Your task to perform on an android device: Add razer blade to the cart on ebay.com, then select checkout. Image 0: 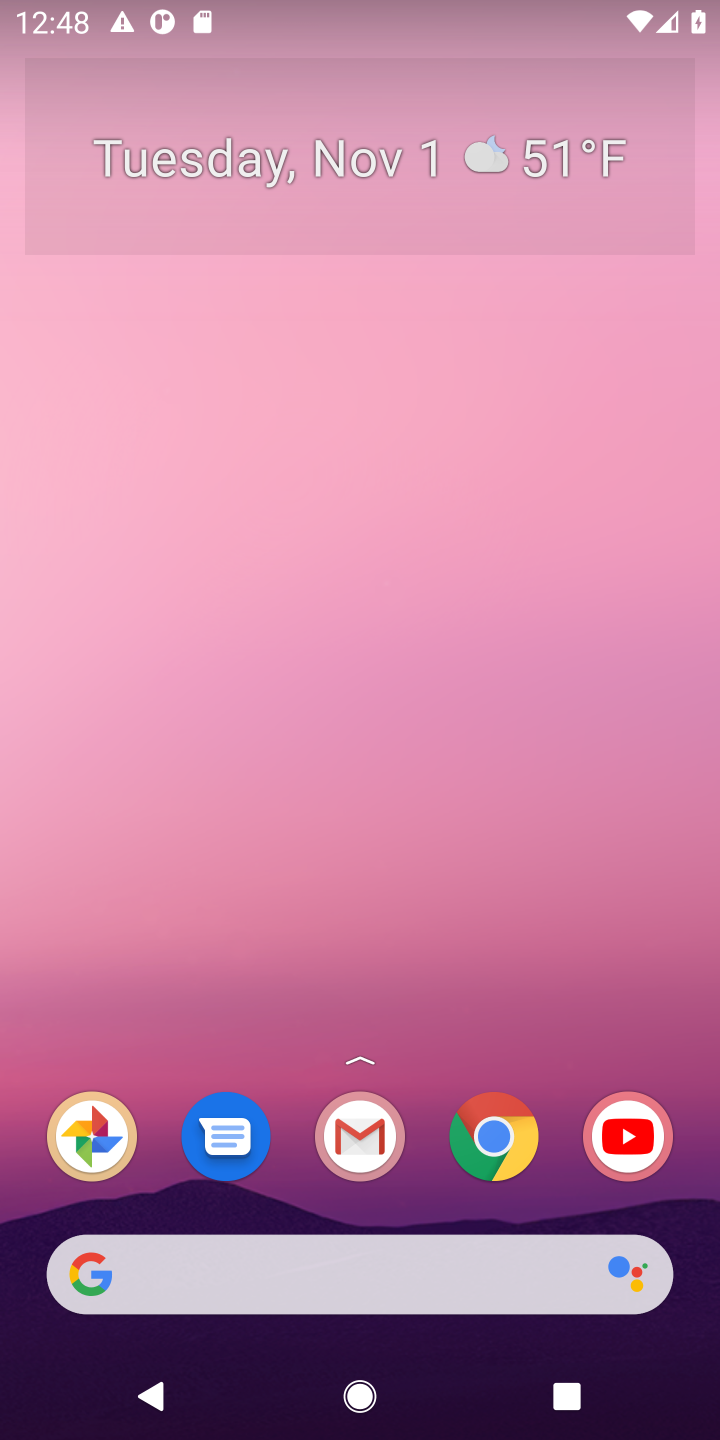
Step 0: press home button
Your task to perform on an android device: Add razer blade to the cart on ebay.com, then select checkout. Image 1: 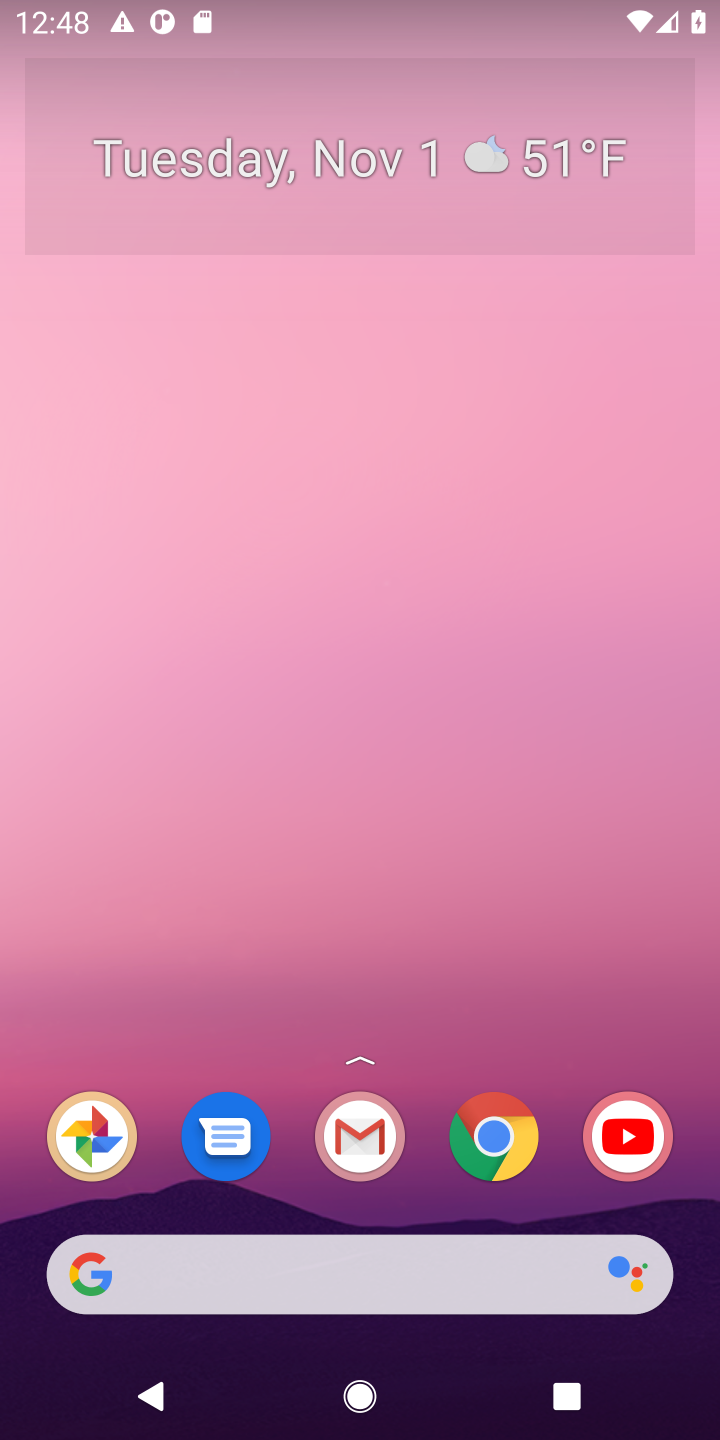
Step 1: click (140, 1281)
Your task to perform on an android device: Add razer blade to the cart on ebay.com, then select checkout. Image 2: 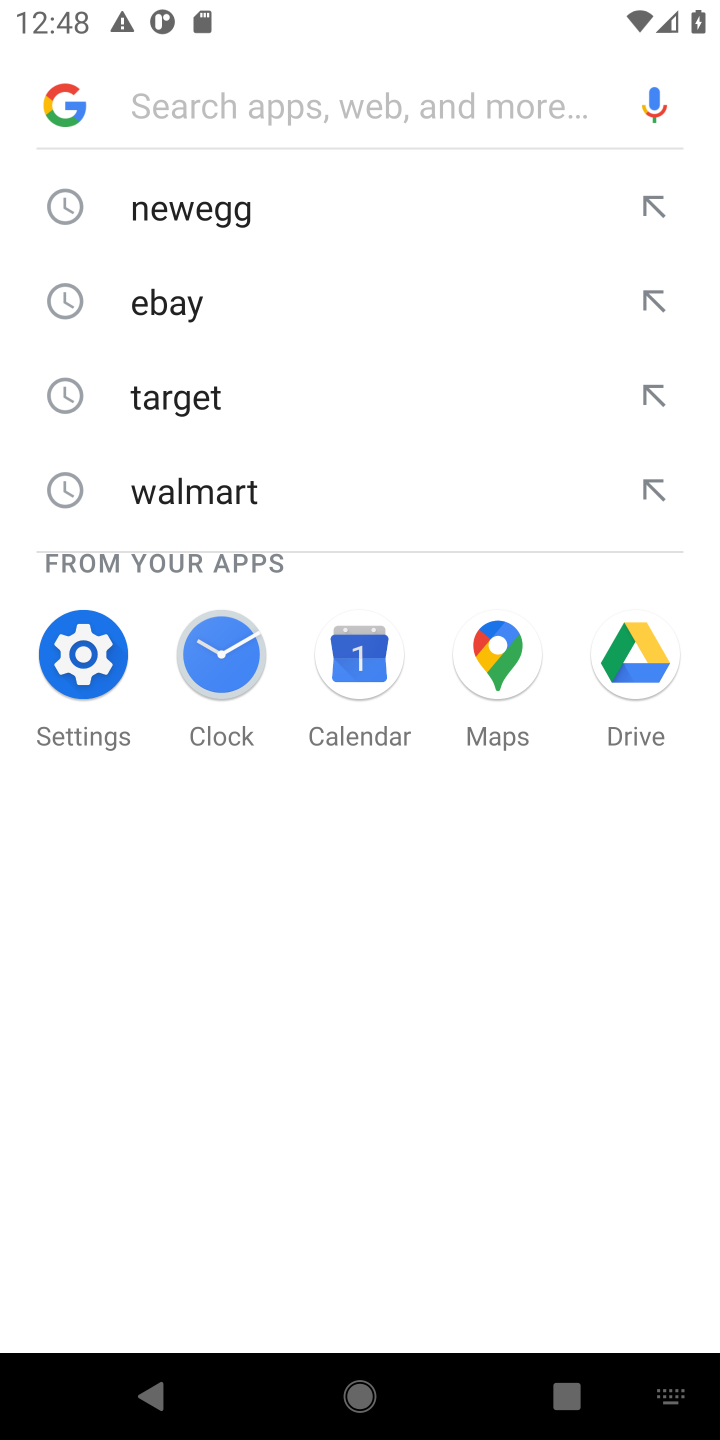
Step 2: type "ebay.com"
Your task to perform on an android device: Add razer blade to the cart on ebay.com, then select checkout. Image 3: 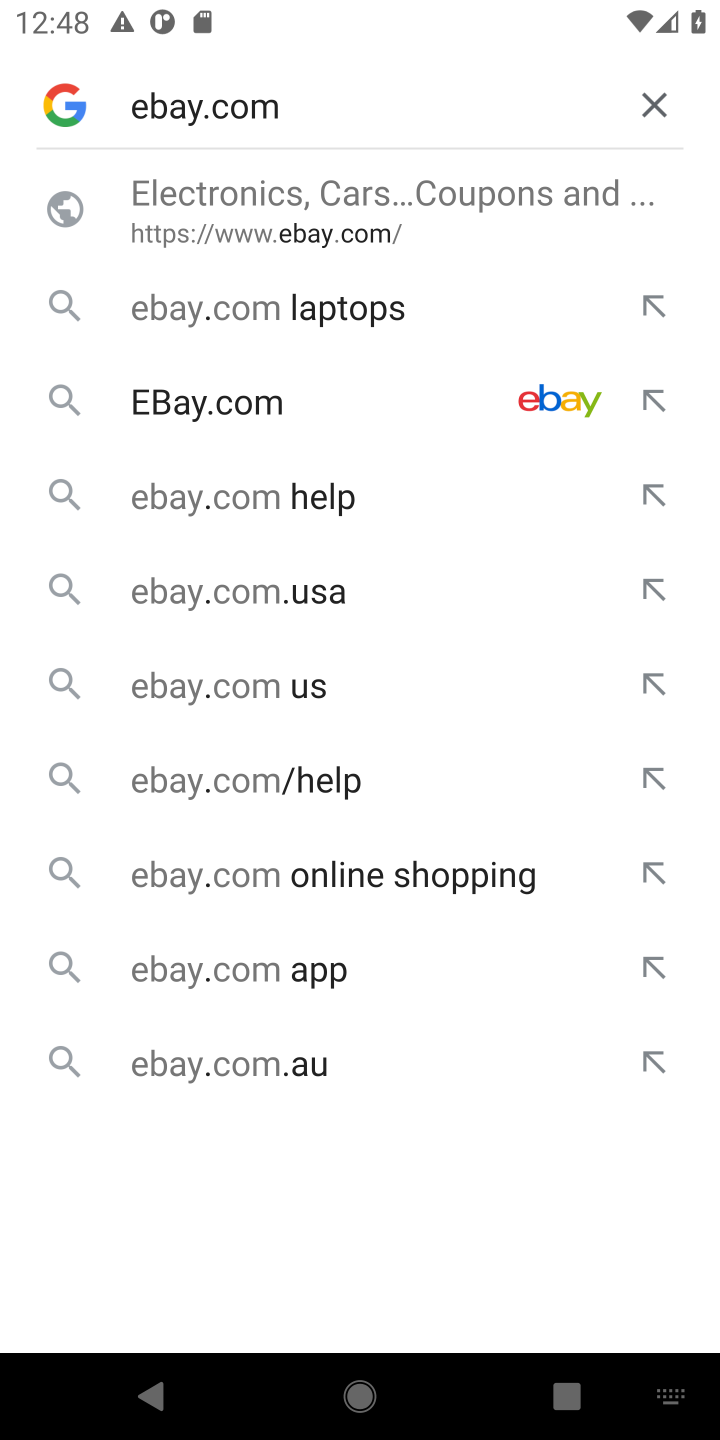
Step 3: press enter
Your task to perform on an android device: Add razer blade to the cart on ebay.com, then select checkout. Image 4: 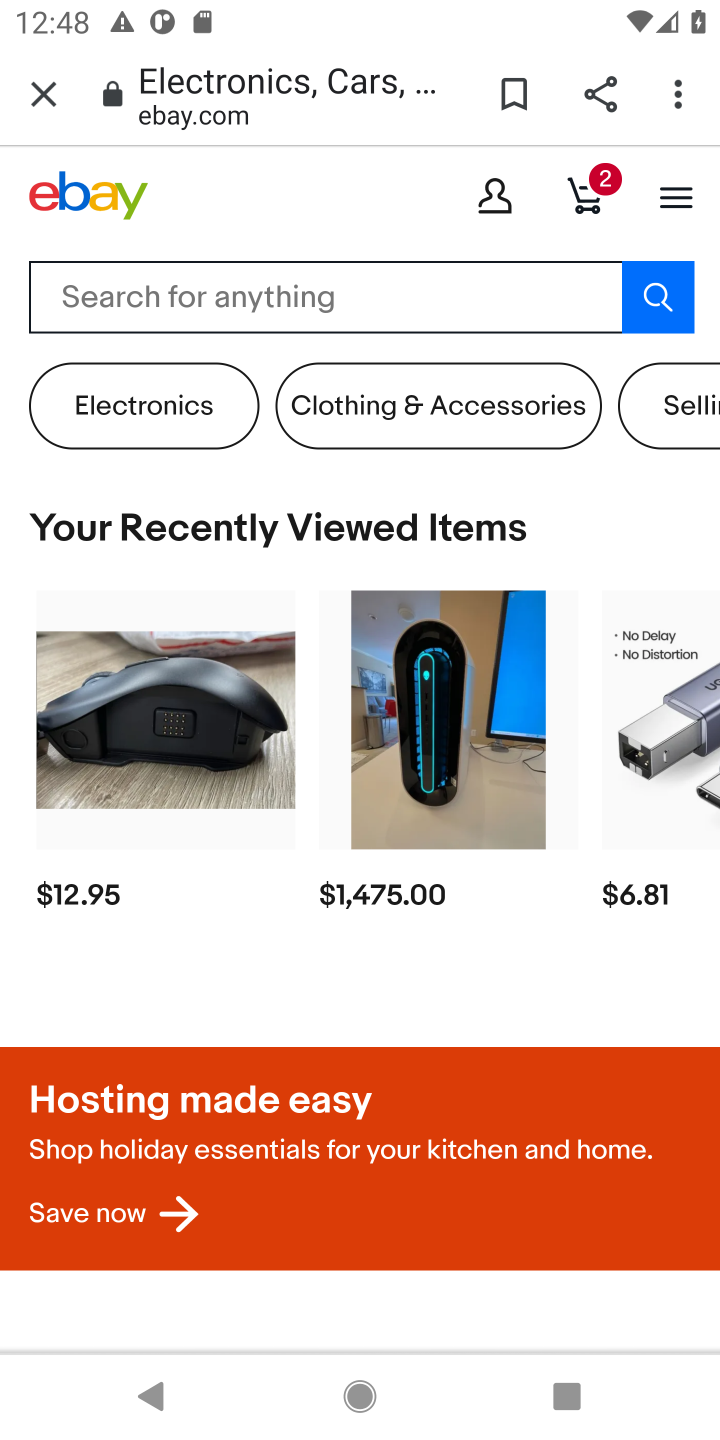
Step 4: click (99, 300)
Your task to perform on an android device: Add razer blade to the cart on ebay.com, then select checkout. Image 5: 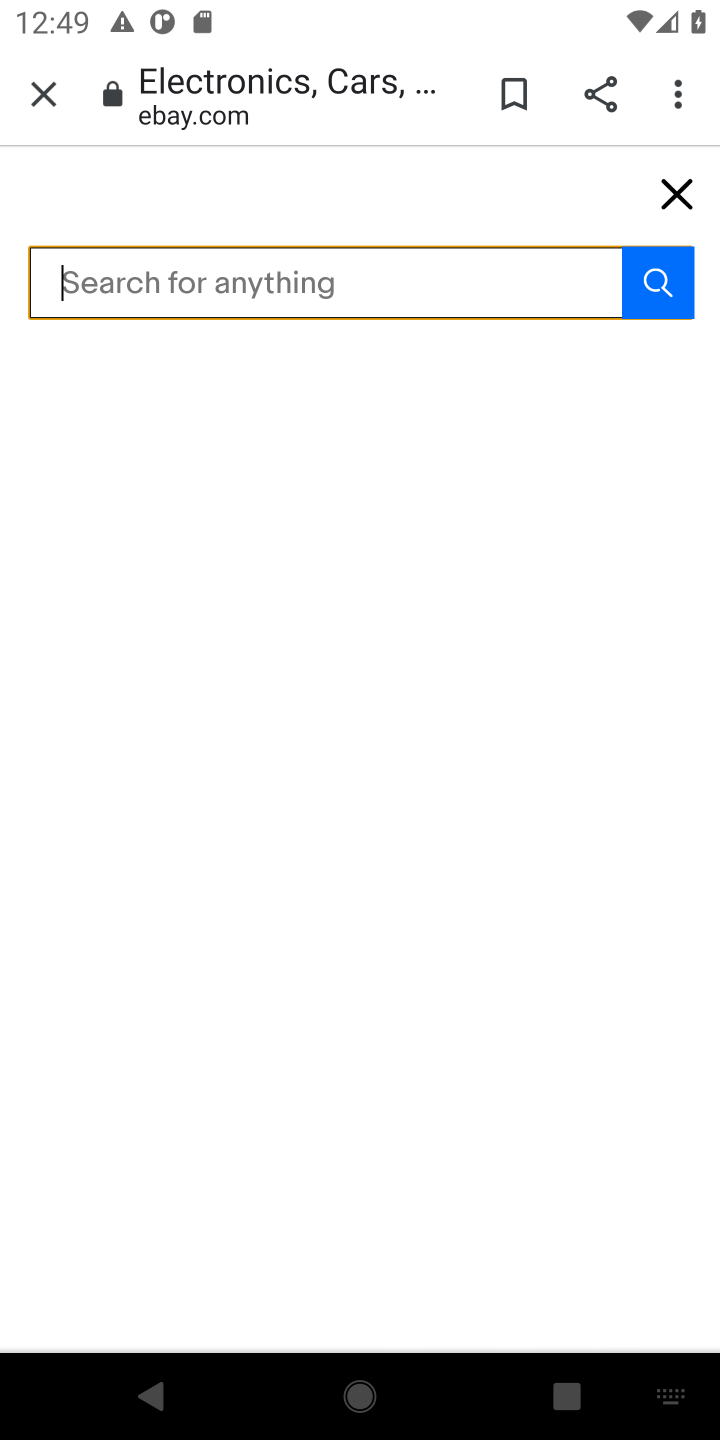
Step 5: type "razer blade"
Your task to perform on an android device: Add razer blade to the cart on ebay.com, then select checkout. Image 6: 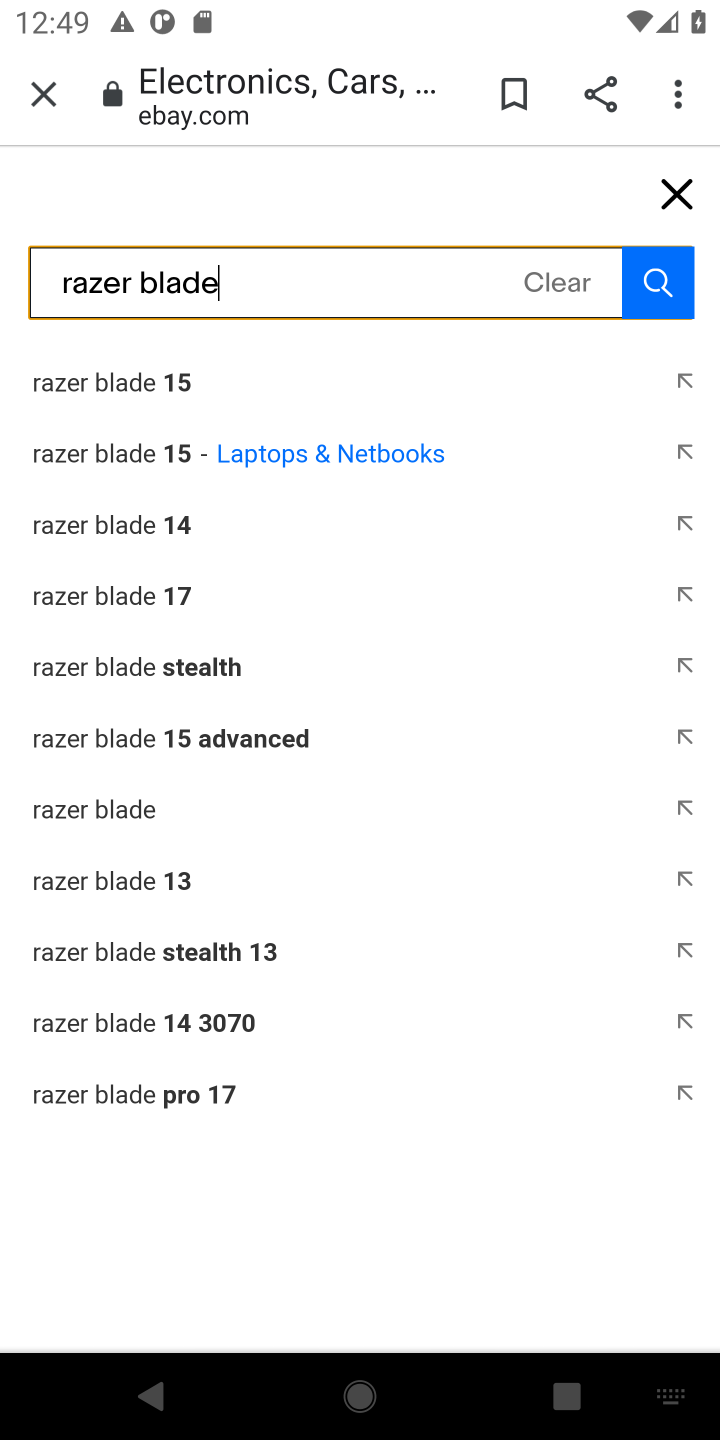
Step 6: click (659, 272)
Your task to perform on an android device: Add razer blade to the cart on ebay.com, then select checkout. Image 7: 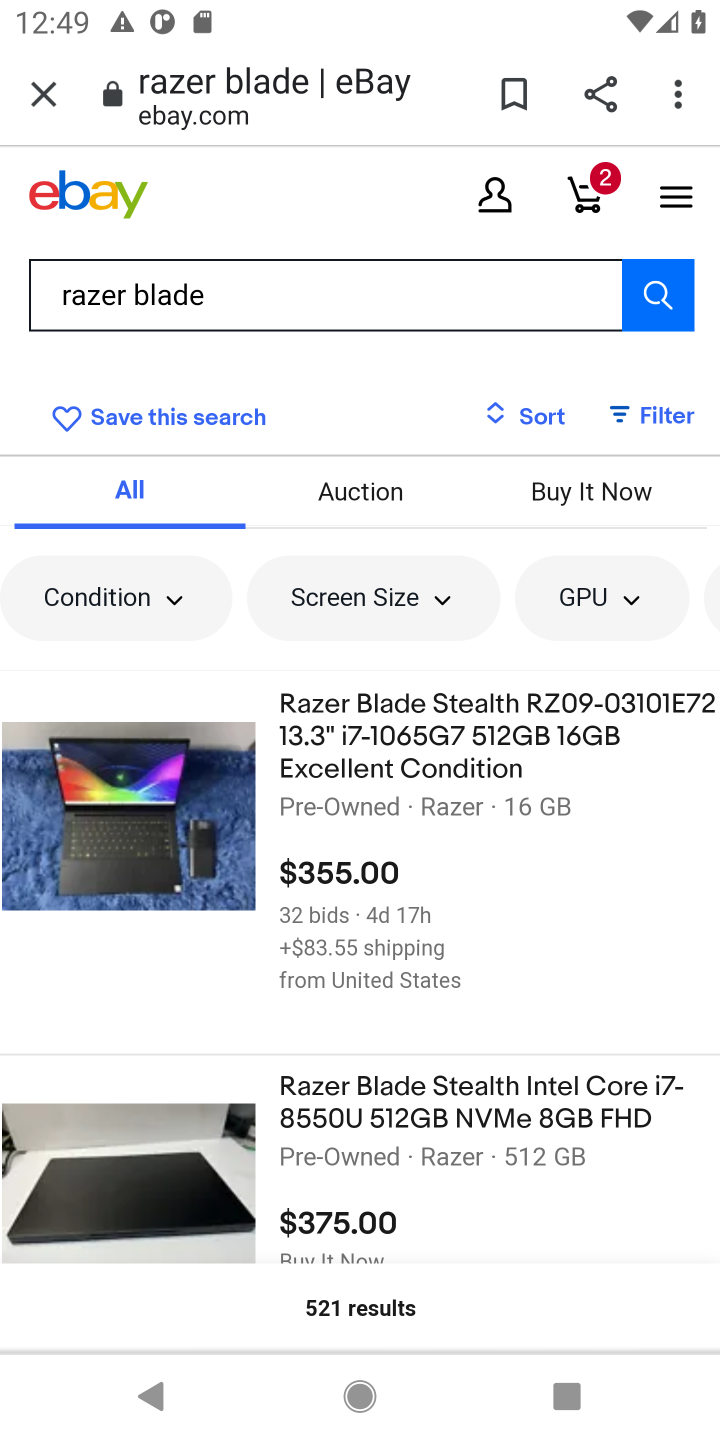
Step 7: click (413, 728)
Your task to perform on an android device: Add razer blade to the cart on ebay.com, then select checkout. Image 8: 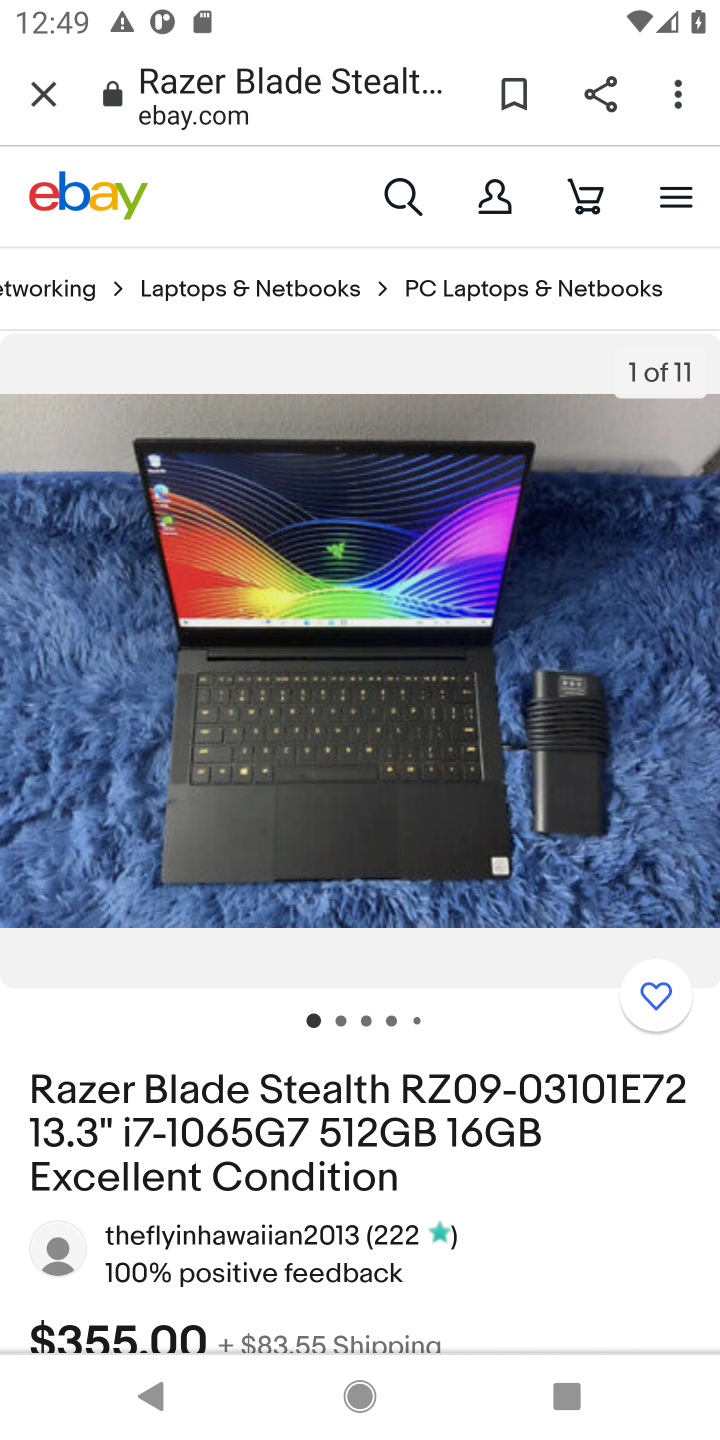
Step 8: drag from (328, 903) to (404, 397)
Your task to perform on an android device: Add razer blade to the cart on ebay.com, then select checkout. Image 9: 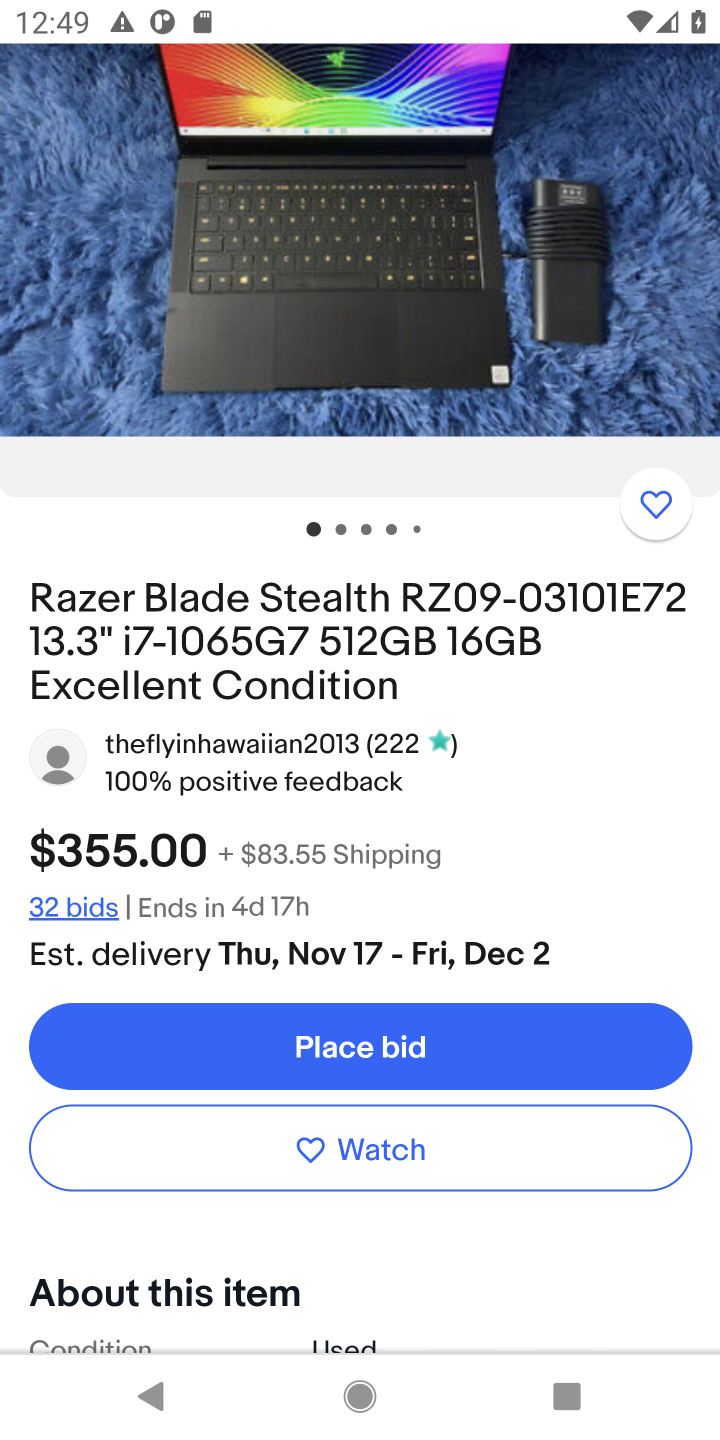
Step 9: click (346, 1052)
Your task to perform on an android device: Add razer blade to the cart on ebay.com, then select checkout. Image 10: 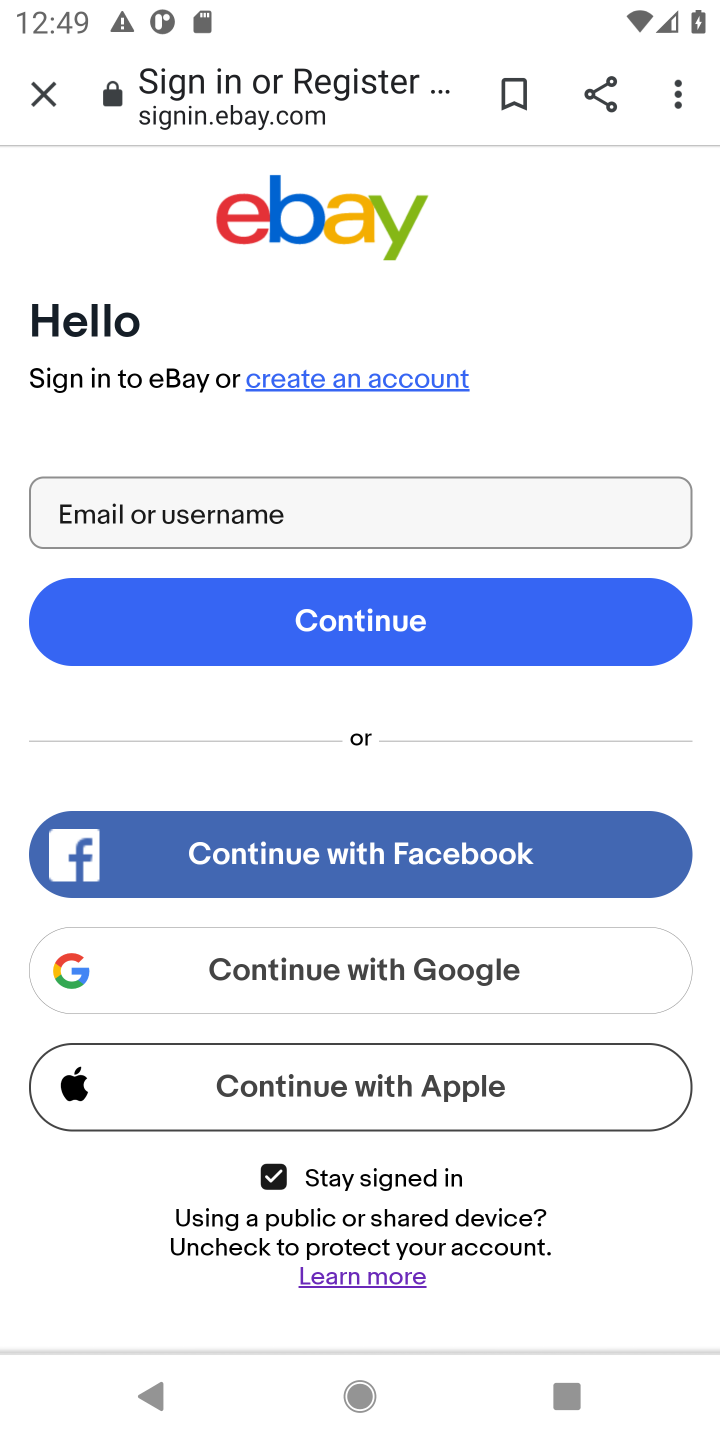
Step 10: task complete